Your task to perform on an android device: Open the Play Movies app and select the watchlist tab. Image 0: 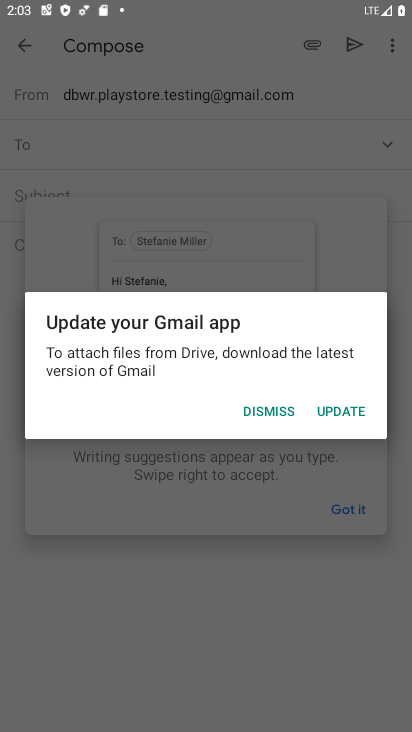
Step 0: press back button
Your task to perform on an android device: Open the Play Movies app and select the watchlist tab. Image 1: 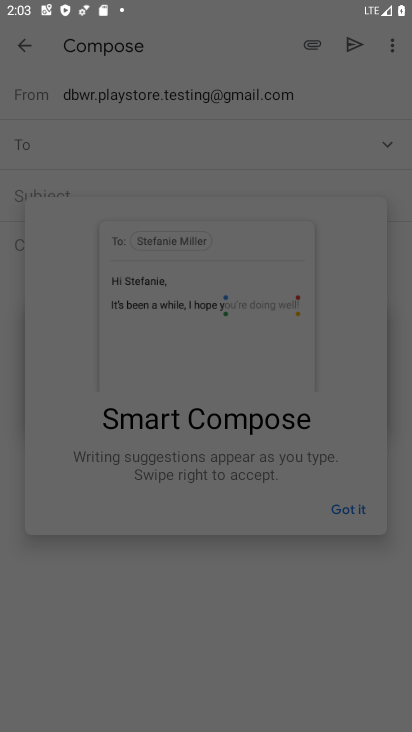
Step 1: press home button
Your task to perform on an android device: Open the Play Movies app and select the watchlist tab. Image 2: 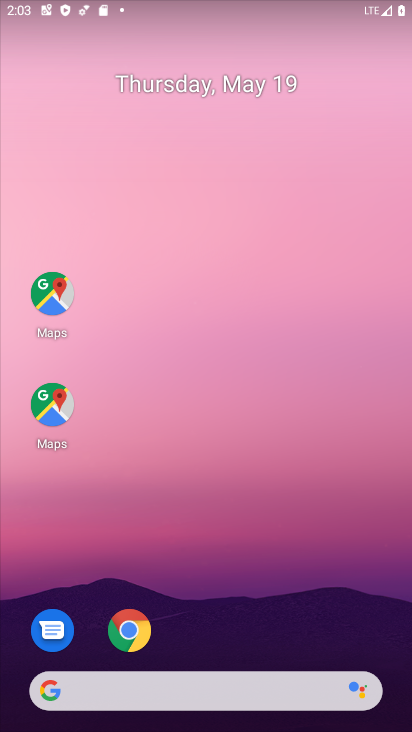
Step 2: drag from (246, 571) to (234, 67)
Your task to perform on an android device: Open the Play Movies app and select the watchlist tab. Image 3: 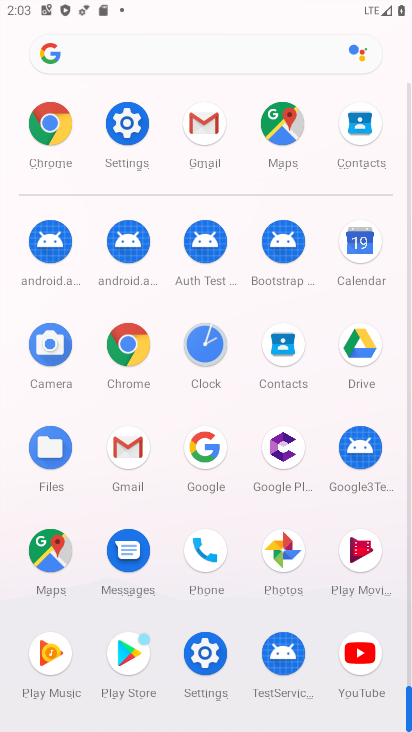
Step 3: click (360, 550)
Your task to perform on an android device: Open the Play Movies app and select the watchlist tab. Image 4: 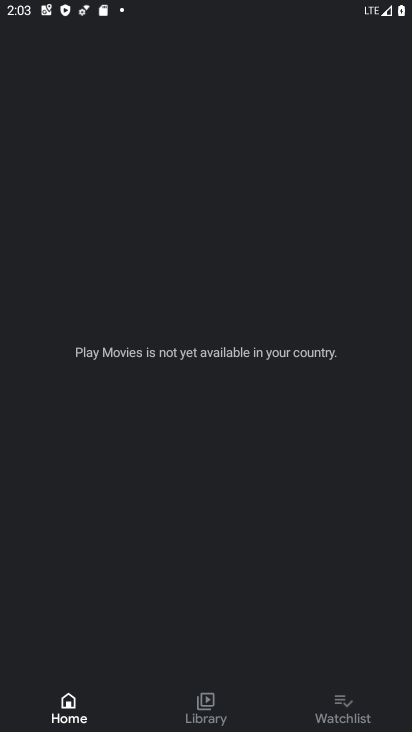
Step 4: click (339, 691)
Your task to perform on an android device: Open the Play Movies app and select the watchlist tab. Image 5: 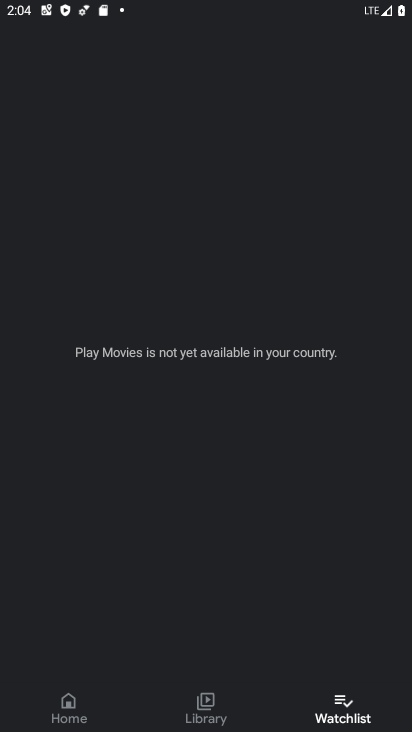
Step 5: task complete